Your task to perform on an android device: Do I have any events tomorrow? Image 0: 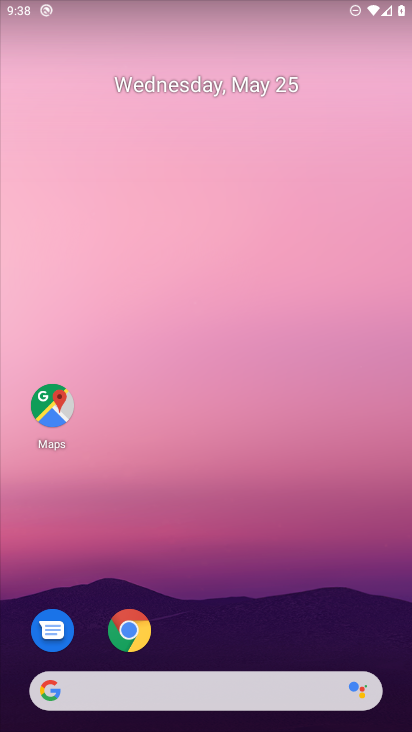
Step 0: drag from (244, 673) to (274, 234)
Your task to perform on an android device: Do I have any events tomorrow? Image 1: 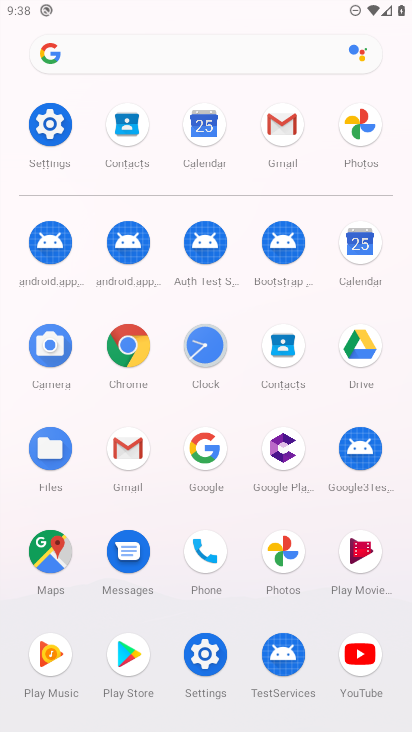
Step 1: click (202, 128)
Your task to perform on an android device: Do I have any events tomorrow? Image 2: 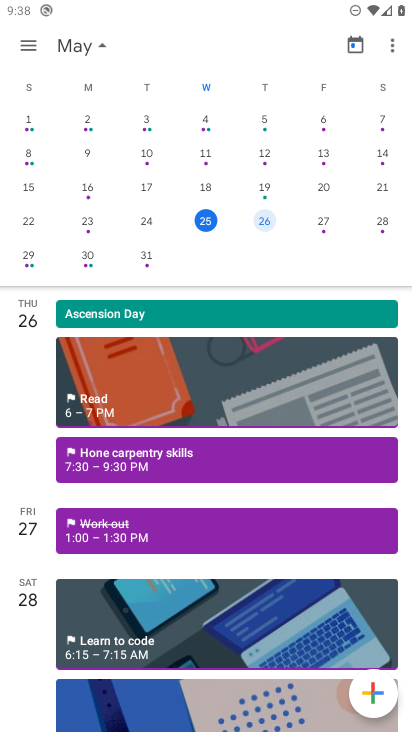
Step 2: click (258, 227)
Your task to perform on an android device: Do I have any events tomorrow? Image 3: 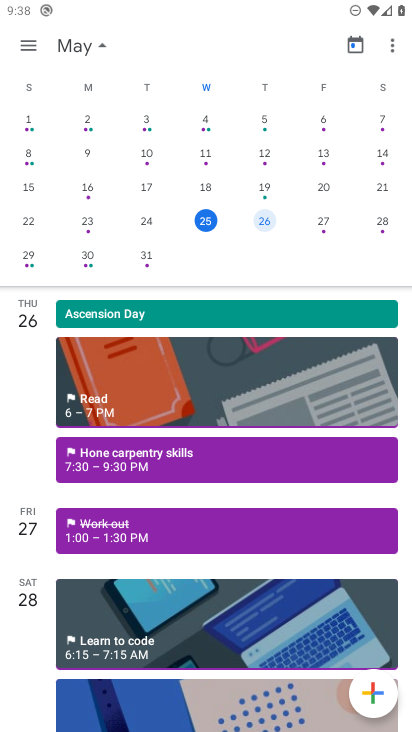
Step 3: click (265, 226)
Your task to perform on an android device: Do I have any events tomorrow? Image 4: 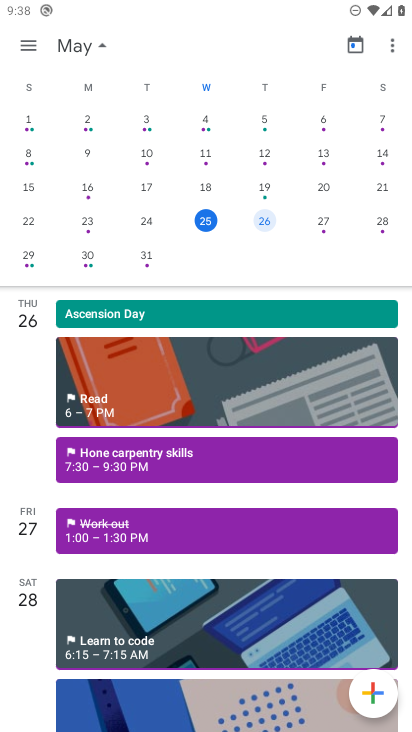
Step 4: click (200, 354)
Your task to perform on an android device: Do I have any events tomorrow? Image 5: 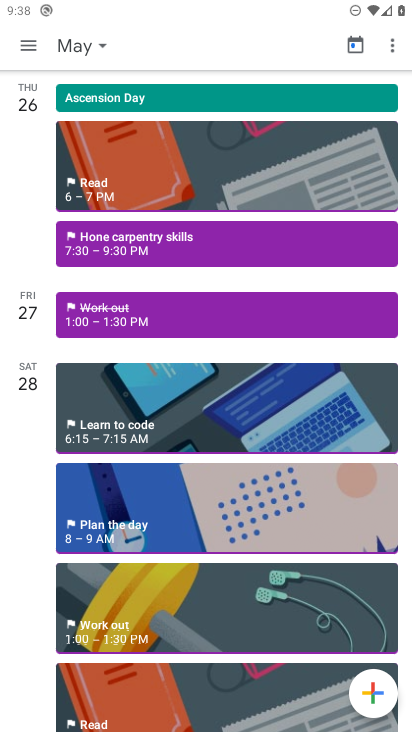
Step 5: click (153, 102)
Your task to perform on an android device: Do I have any events tomorrow? Image 6: 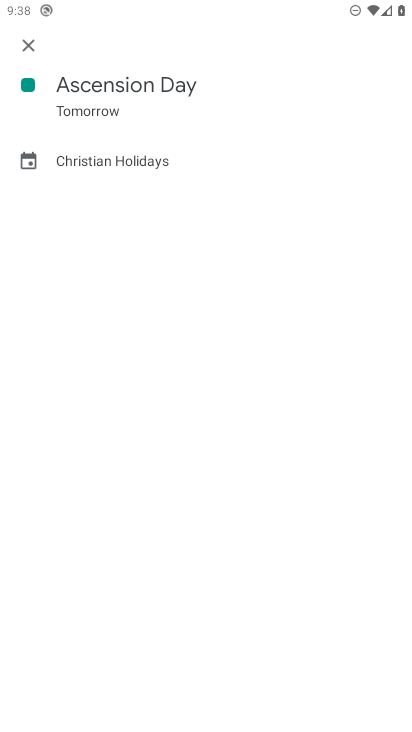
Step 6: task complete